Your task to perform on an android device: Open Google Image 0: 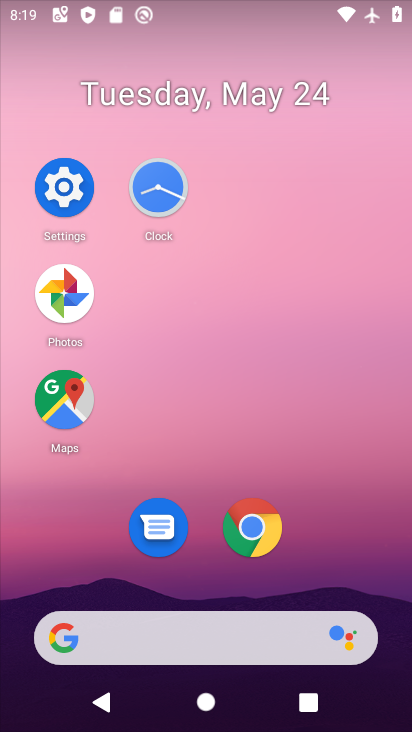
Step 0: drag from (323, 576) to (333, 189)
Your task to perform on an android device: Open Google Image 1: 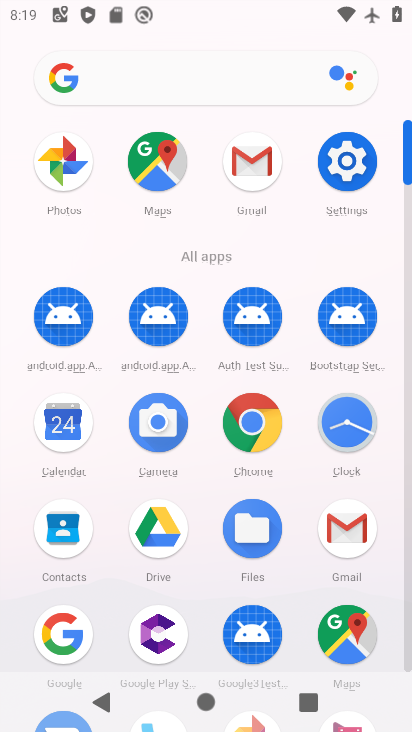
Step 1: drag from (207, 470) to (216, 232)
Your task to perform on an android device: Open Google Image 2: 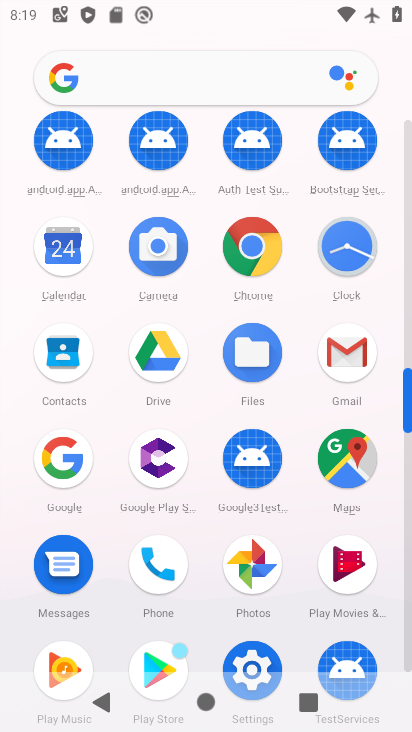
Step 2: drag from (62, 460) to (120, 320)
Your task to perform on an android device: Open Google Image 3: 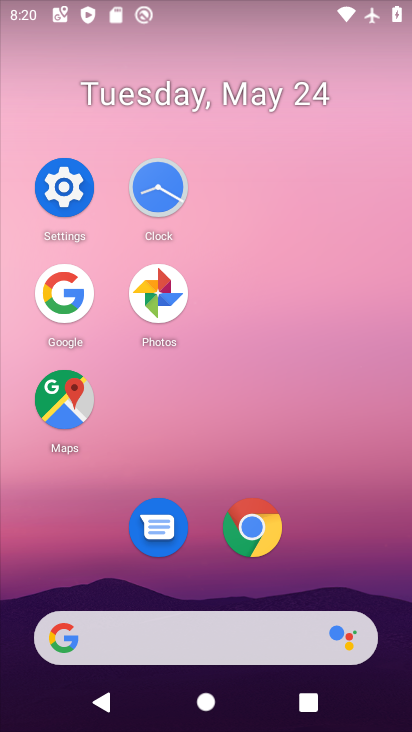
Step 3: click (86, 287)
Your task to perform on an android device: Open Google Image 4: 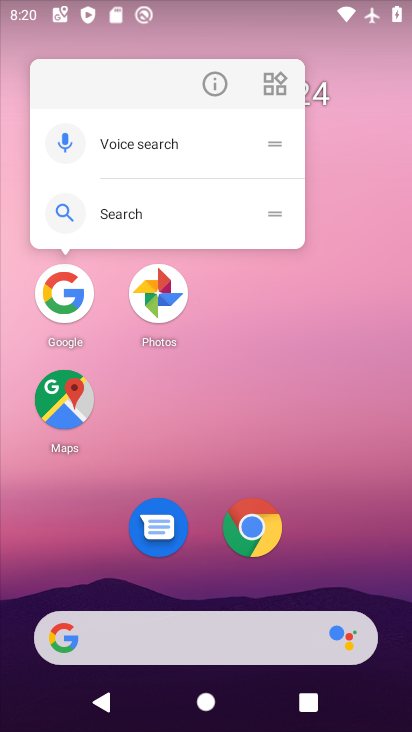
Step 4: click (73, 284)
Your task to perform on an android device: Open Google Image 5: 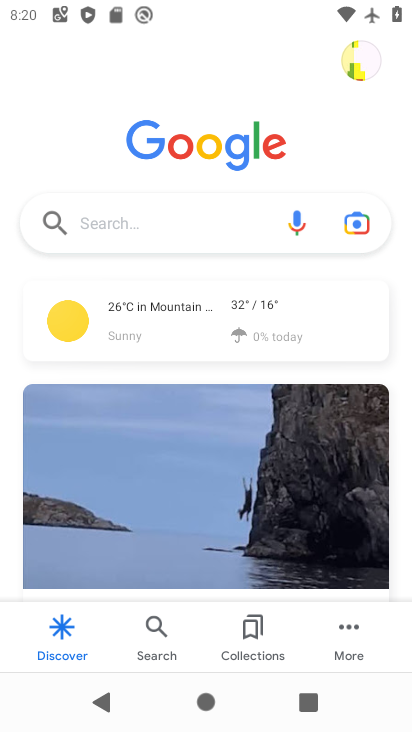
Step 5: task complete